Your task to perform on an android device: manage bookmarks in the chrome app Image 0: 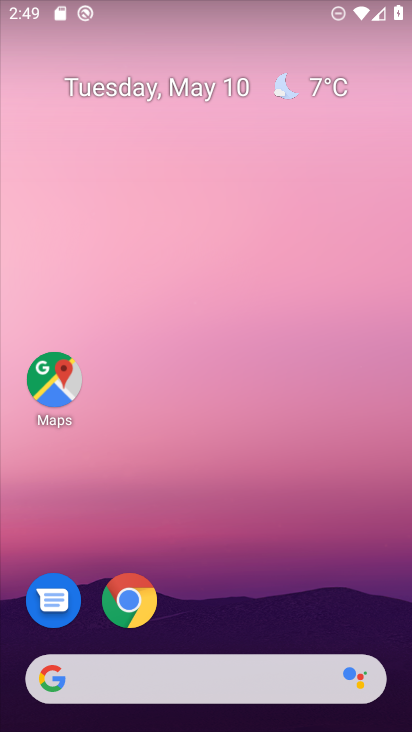
Step 0: click (150, 611)
Your task to perform on an android device: manage bookmarks in the chrome app Image 1: 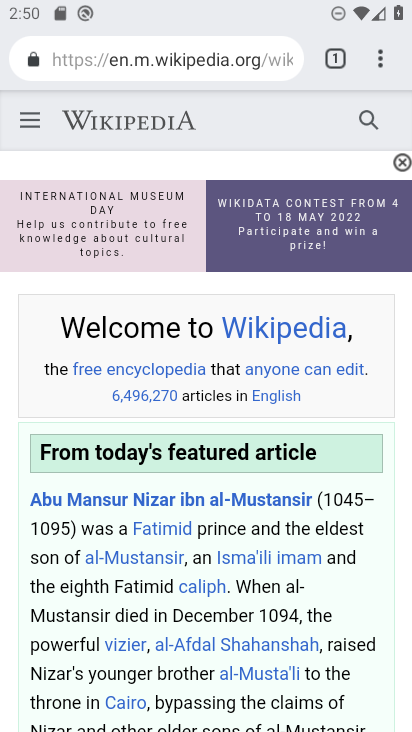
Step 1: click (387, 52)
Your task to perform on an android device: manage bookmarks in the chrome app Image 2: 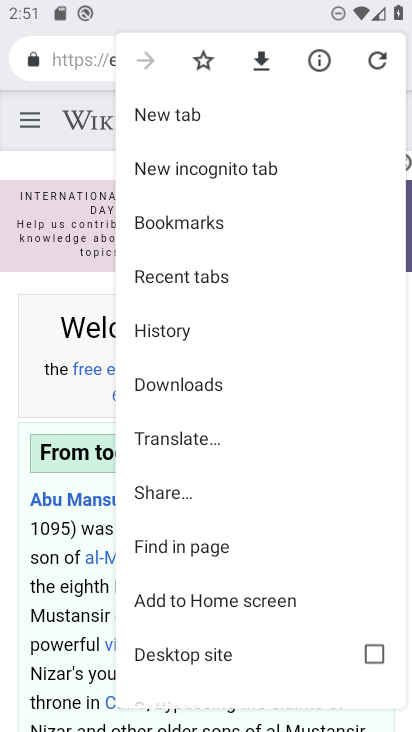
Step 2: click (236, 220)
Your task to perform on an android device: manage bookmarks in the chrome app Image 3: 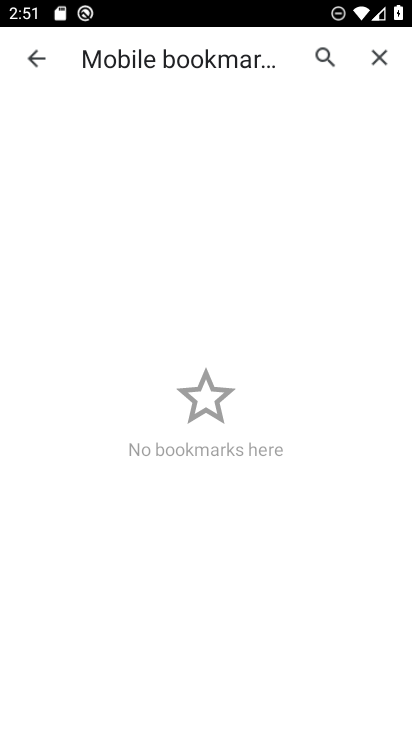
Step 3: task complete